Your task to perform on an android device: toggle location history Image 0: 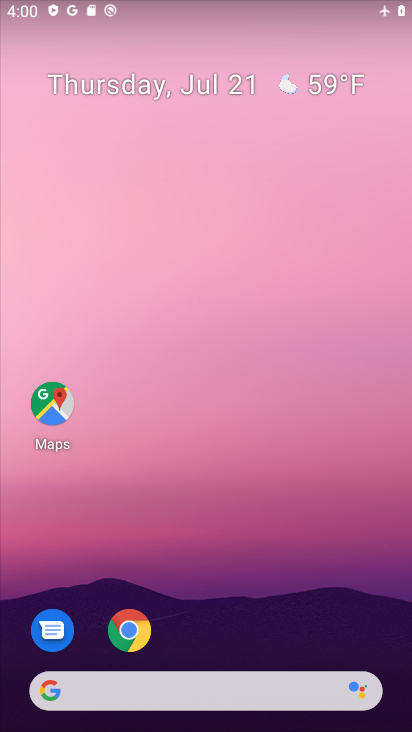
Step 0: drag from (294, 608) to (252, 284)
Your task to perform on an android device: toggle location history Image 1: 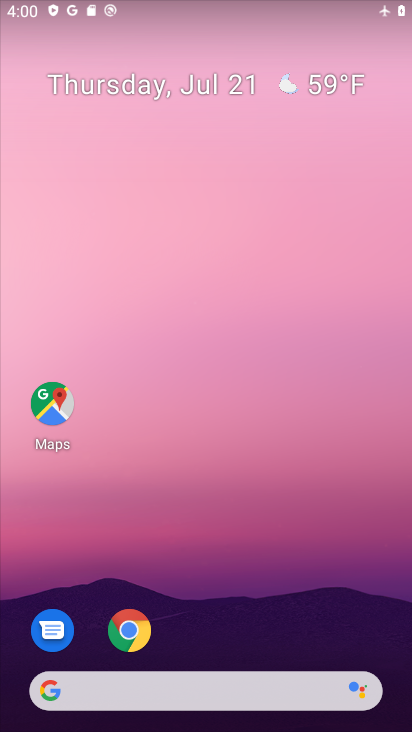
Step 1: drag from (298, 517) to (209, 130)
Your task to perform on an android device: toggle location history Image 2: 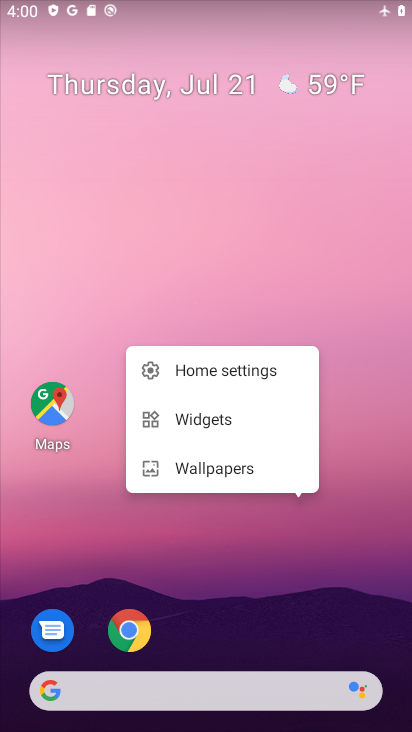
Step 2: drag from (228, 250) to (245, 129)
Your task to perform on an android device: toggle location history Image 3: 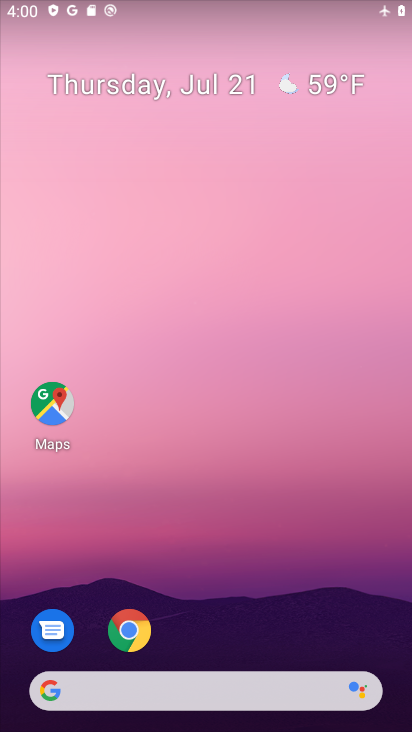
Step 3: drag from (225, 526) to (225, 133)
Your task to perform on an android device: toggle location history Image 4: 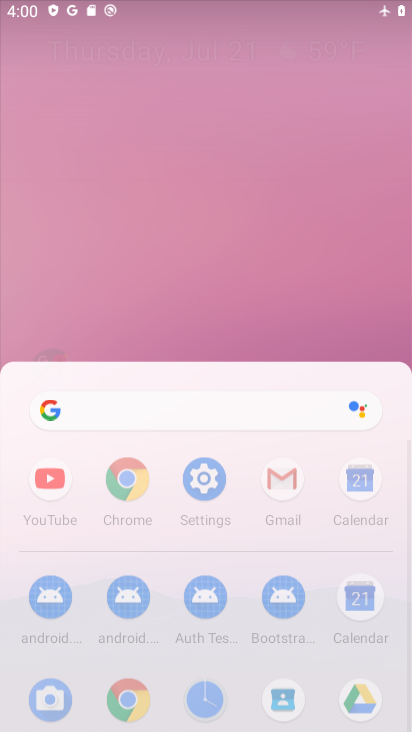
Step 4: drag from (243, 485) to (243, 24)
Your task to perform on an android device: toggle location history Image 5: 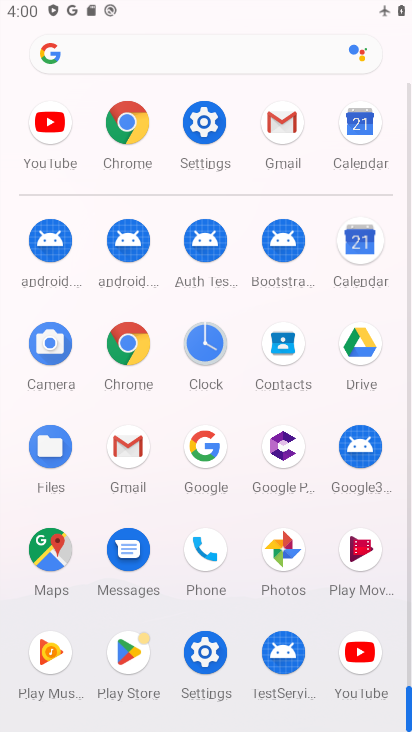
Step 5: drag from (208, 504) to (201, 184)
Your task to perform on an android device: toggle location history Image 6: 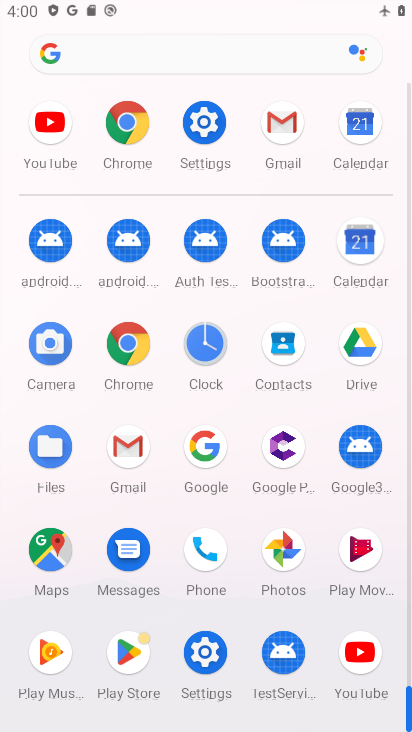
Step 6: click (206, 132)
Your task to perform on an android device: toggle location history Image 7: 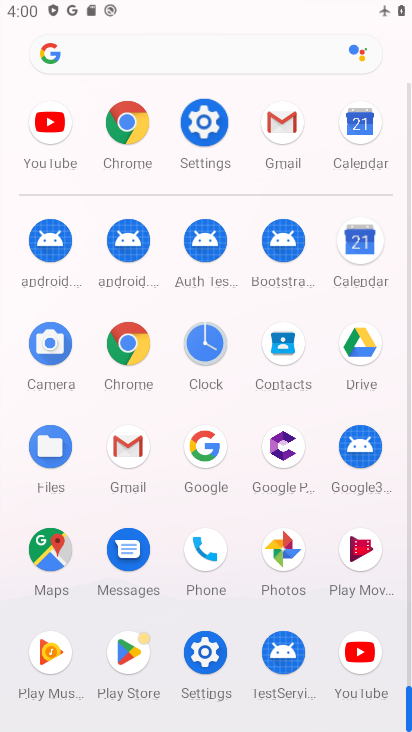
Step 7: click (206, 133)
Your task to perform on an android device: toggle location history Image 8: 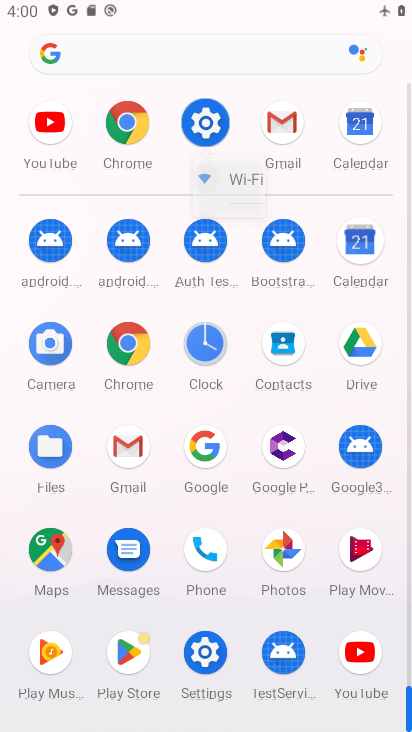
Step 8: click (207, 134)
Your task to perform on an android device: toggle location history Image 9: 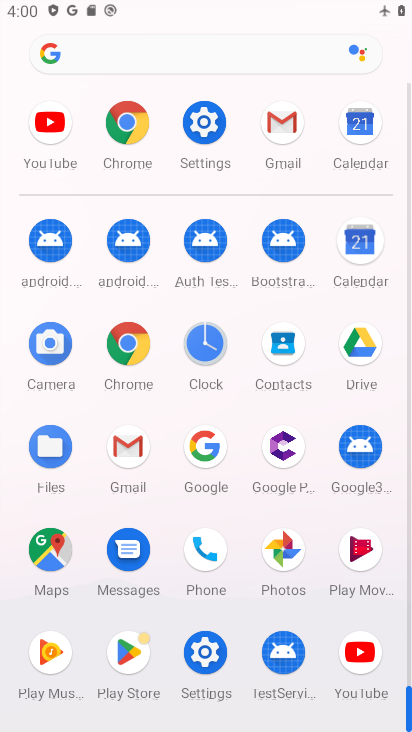
Step 9: click (208, 134)
Your task to perform on an android device: toggle location history Image 10: 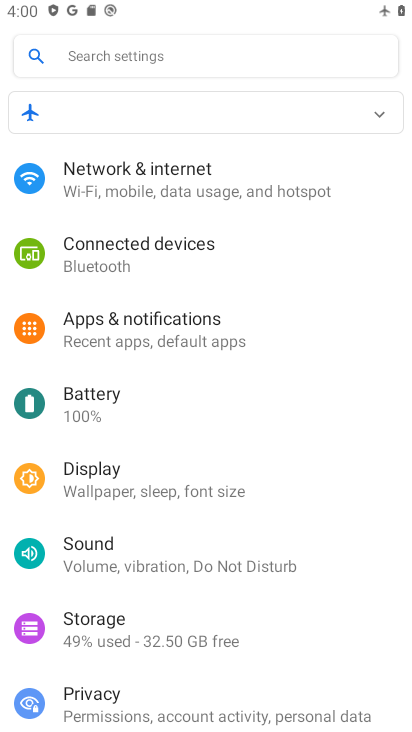
Step 10: drag from (163, 597) to (129, 205)
Your task to perform on an android device: toggle location history Image 11: 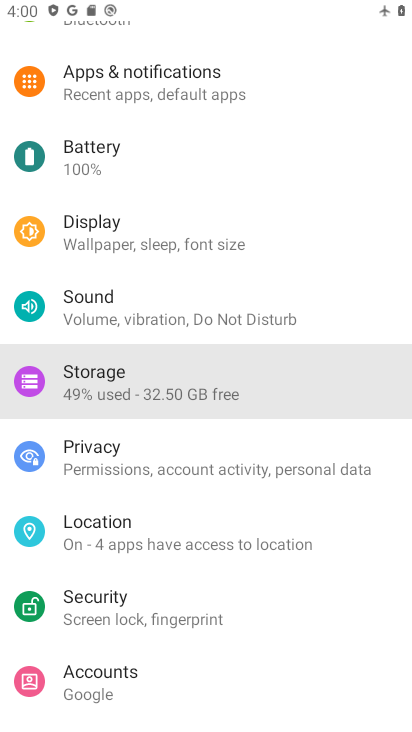
Step 11: drag from (129, 455) to (129, 244)
Your task to perform on an android device: toggle location history Image 12: 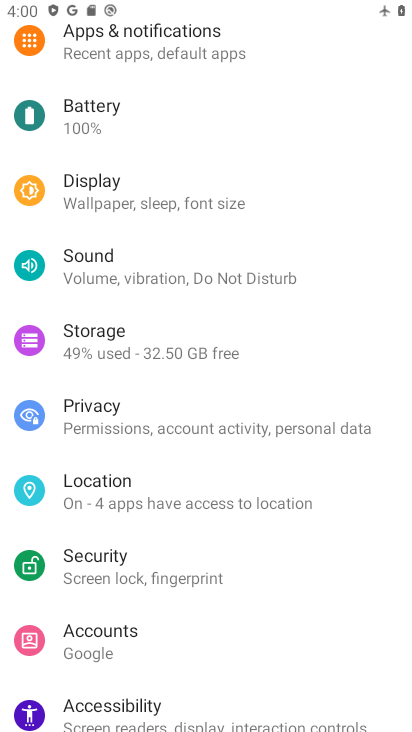
Step 12: click (98, 473)
Your task to perform on an android device: toggle location history Image 13: 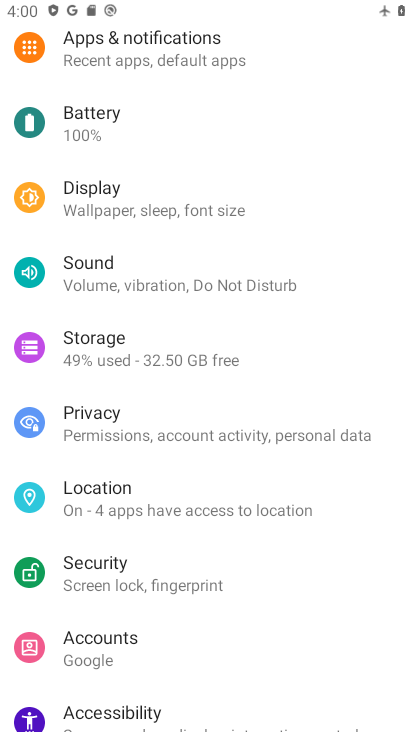
Step 13: click (128, 507)
Your task to perform on an android device: toggle location history Image 14: 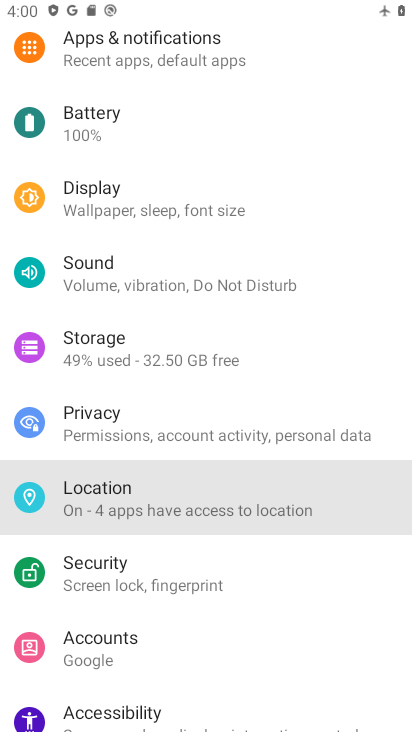
Step 14: click (132, 504)
Your task to perform on an android device: toggle location history Image 15: 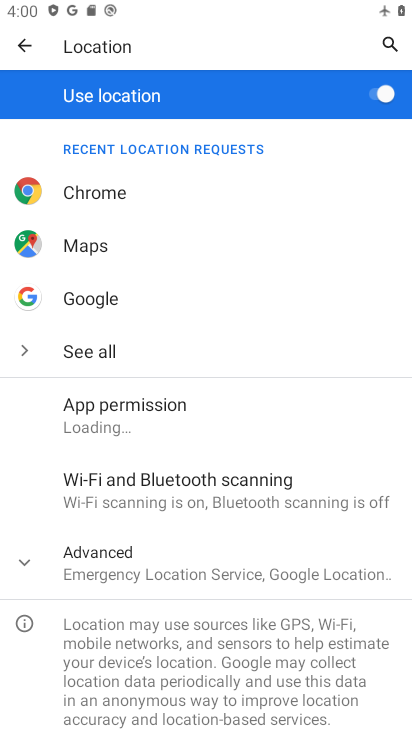
Step 15: click (191, 574)
Your task to perform on an android device: toggle location history Image 16: 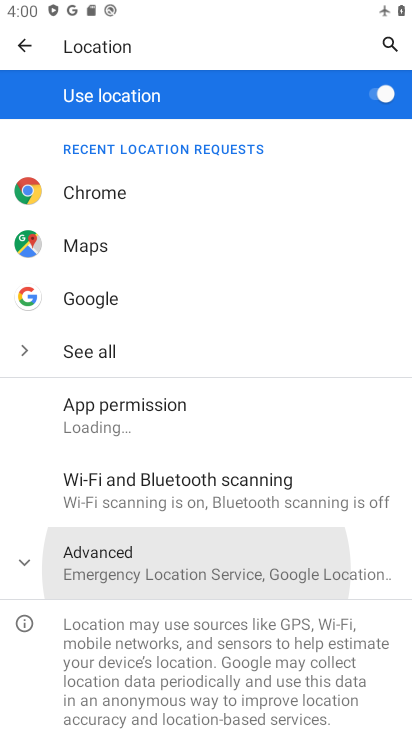
Step 16: click (189, 569)
Your task to perform on an android device: toggle location history Image 17: 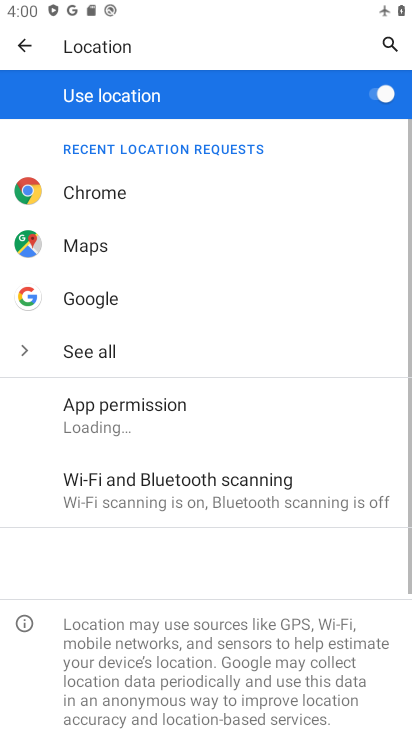
Step 17: click (190, 567)
Your task to perform on an android device: toggle location history Image 18: 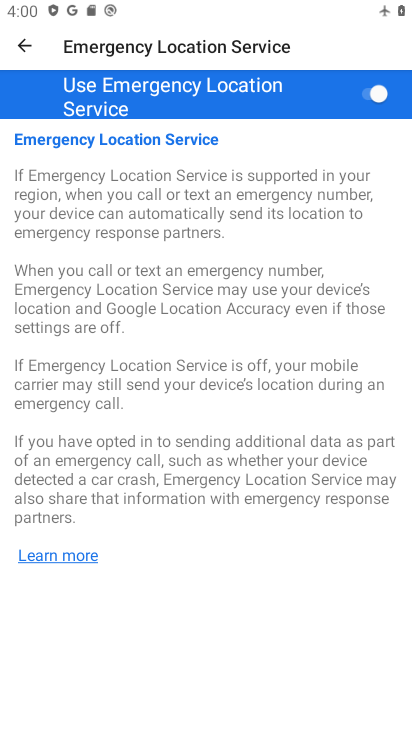
Step 18: click (10, 32)
Your task to perform on an android device: toggle location history Image 19: 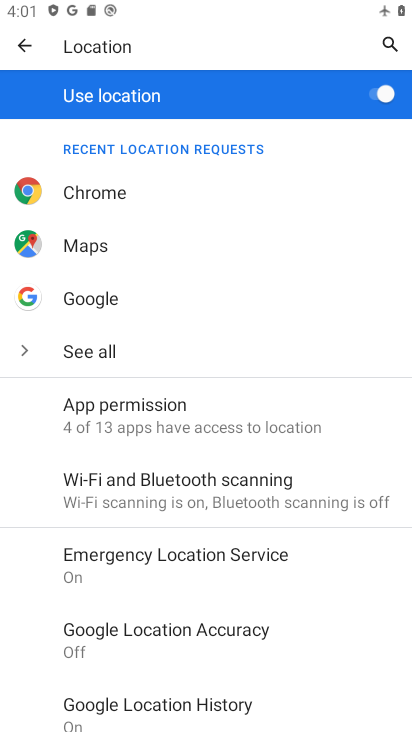
Step 19: click (155, 705)
Your task to perform on an android device: toggle location history Image 20: 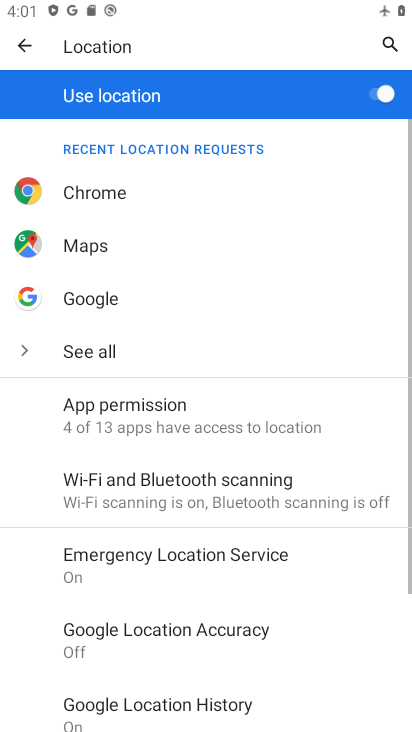
Step 20: click (183, 701)
Your task to perform on an android device: toggle location history Image 21: 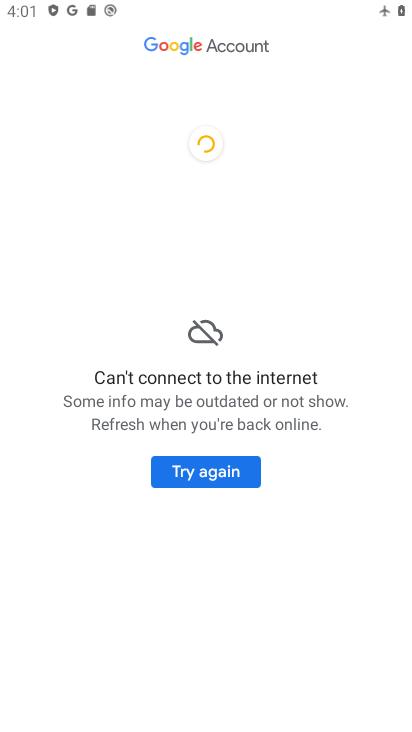
Step 21: task complete